Your task to perform on an android device: Open Wikipedia Image 0: 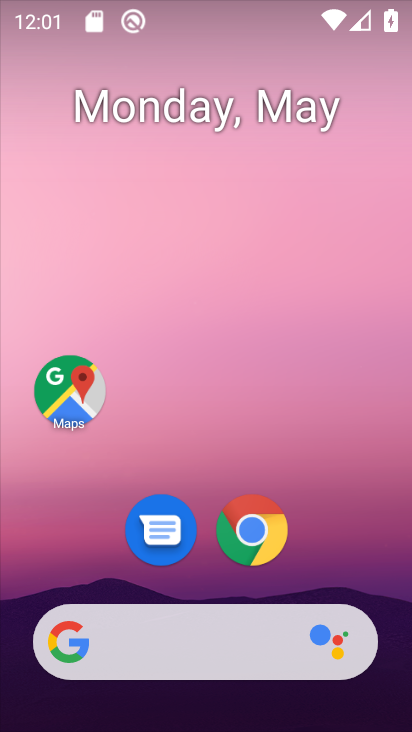
Step 0: click (249, 534)
Your task to perform on an android device: Open Wikipedia Image 1: 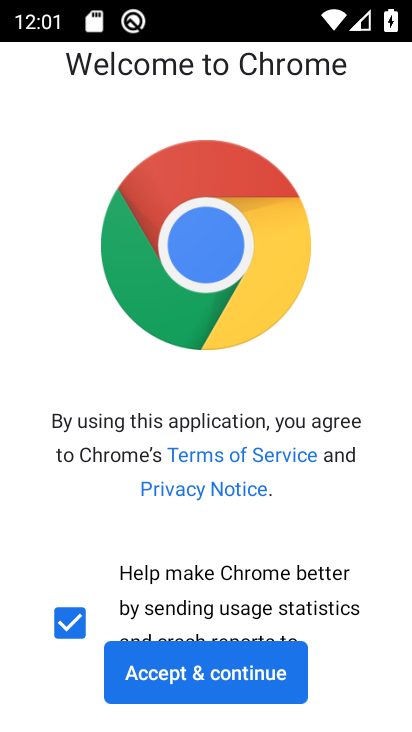
Step 1: click (149, 671)
Your task to perform on an android device: Open Wikipedia Image 2: 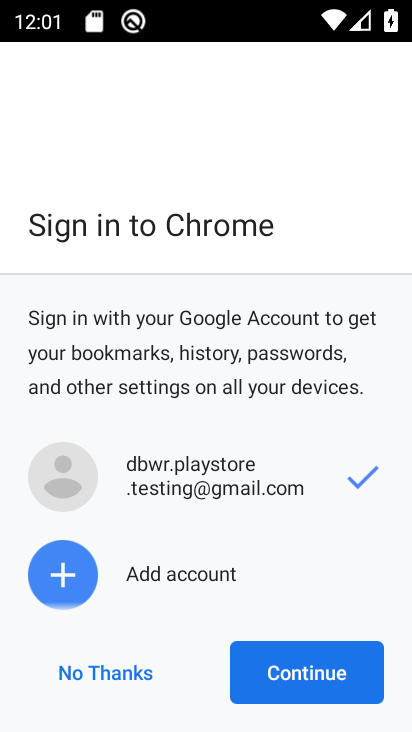
Step 2: click (149, 671)
Your task to perform on an android device: Open Wikipedia Image 3: 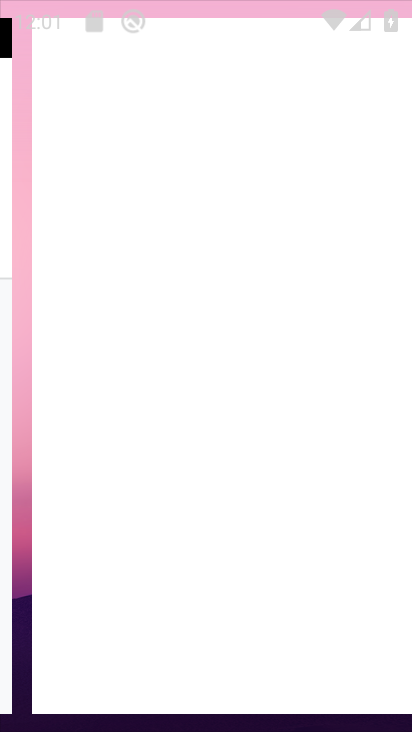
Step 3: click (149, 671)
Your task to perform on an android device: Open Wikipedia Image 4: 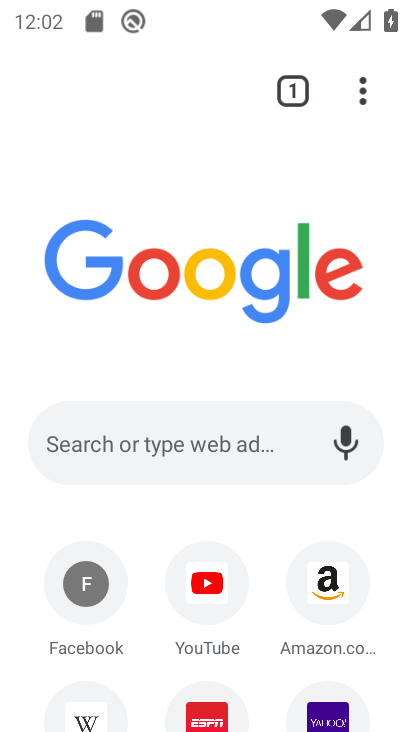
Step 4: click (112, 700)
Your task to perform on an android device: Open Wikipedia Image 5: 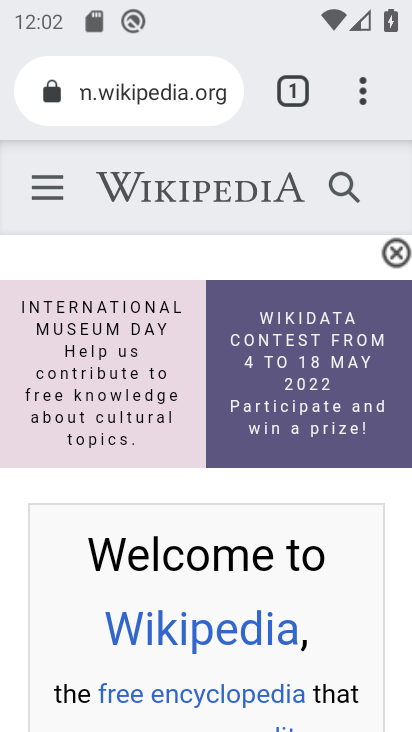
Step 5: task complete